Your task to perform on an android device: Is it going to rain today? Image 0: 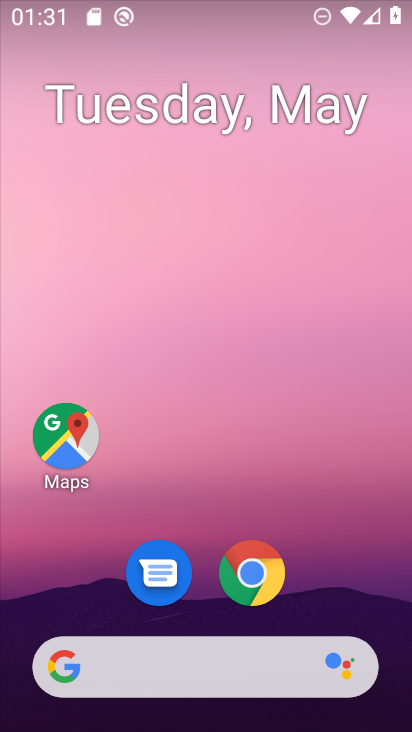
Step 0: drag from (331, 565) to (205, 72)
Your task to perform on an android device: Is it going to rain today? Image 1: 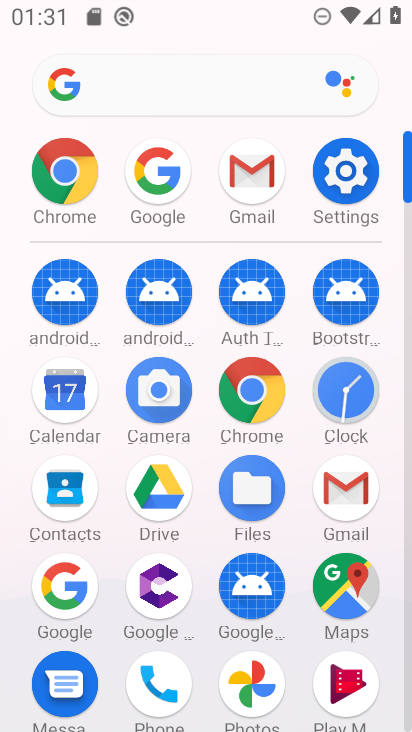
Step 1: click (76, 590)
Your task to perform on an android device: Is it going to rain today? Image 2: 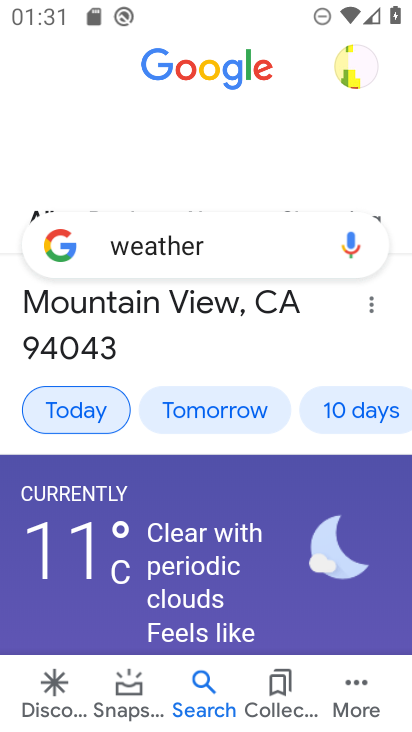
Step 2: task complete